Your task to perform on an android device: open app "McDonald's" (install if not already installed) Image 0: 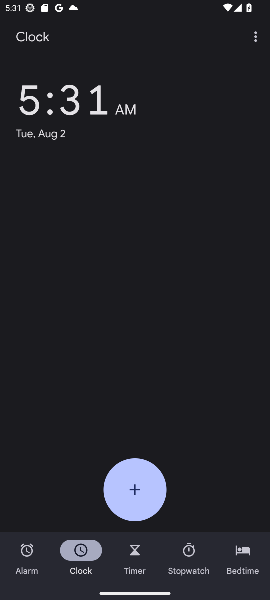
Step 0: press home button
Your task to perform on an android device: open app "McDonald's" (install if not already installed) Image 1: 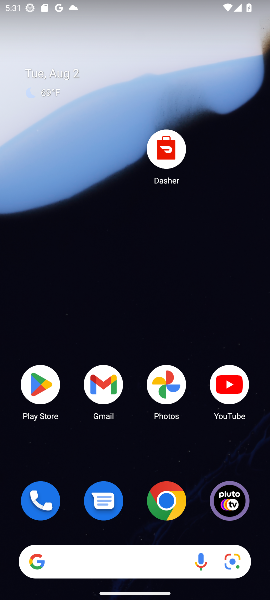
Step 1: click (35, 390)
Your task to perform on an android device: open app "McDonald's" (install if not already installed) Image 2: 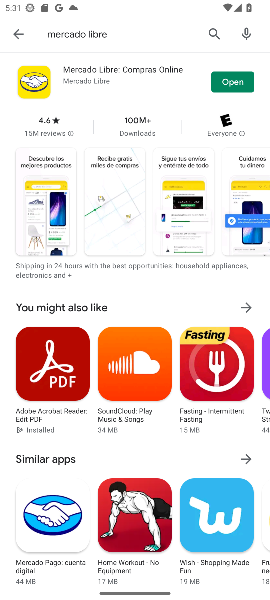
Step 2: click (209, 33)
Your task to perform on an android device: open app "McDonald's" (install if not already installed) Image 3: 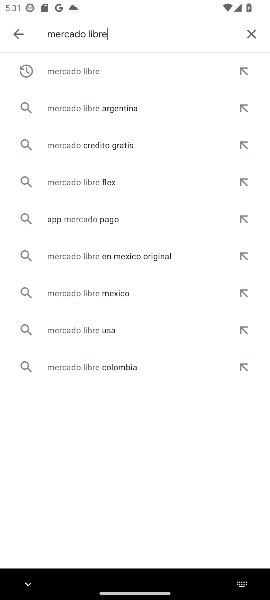
Step 3: click (249, 35)
Your task to perform on an android device: open app "McDonald's" (install if not already installed) Image 4: 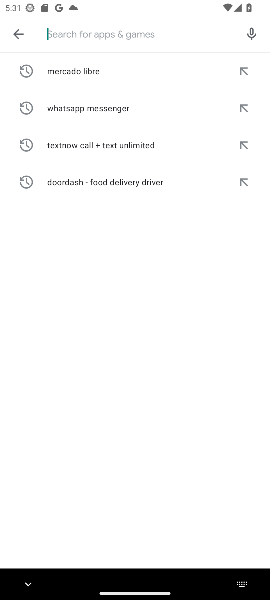
Step 4: type "McDonald's"
Your task to perform on an android device: open app "McDonald's" (install if not already installed) Image 5: 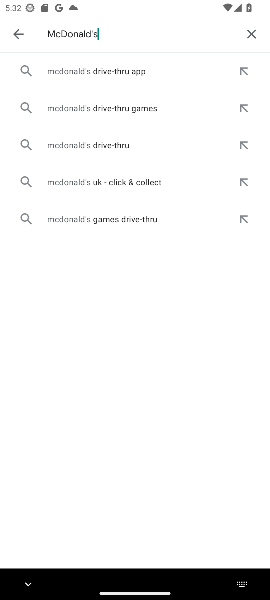
Step 5: click (75, 78)
Your task to perform on an android device: open app "McDonald's" (install if not already installed) Image 6: 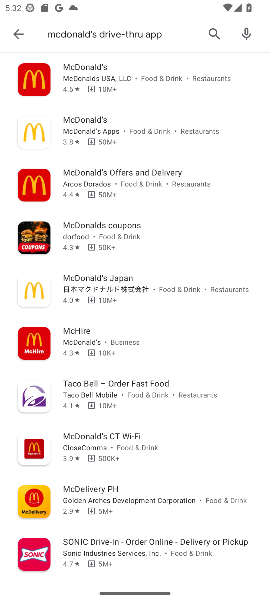
Step 6: click (81, 130)
Your task to perform on an android device: open app "McDonald's" (install if not already installed) Image 7: 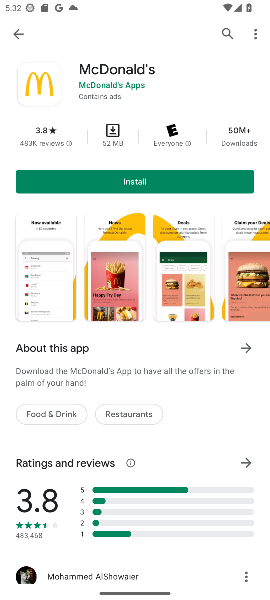
Step 7: click (118, 182)
Your task to perform on an android device: open app "McDonald's" (install if not already installed) Image 8: 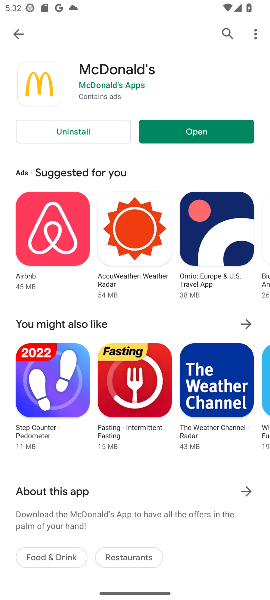
Step 8: click (188, 132)
Your task to perform on an android device: open app "McDonald's" (install if not already installed) Image 9: 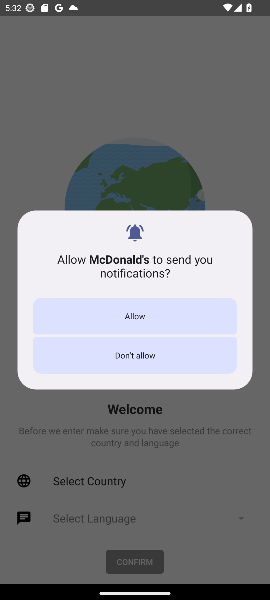
Step 9: task complete